Your task to perform on an android device: Open the calendar and show me this week's events? Image 0: 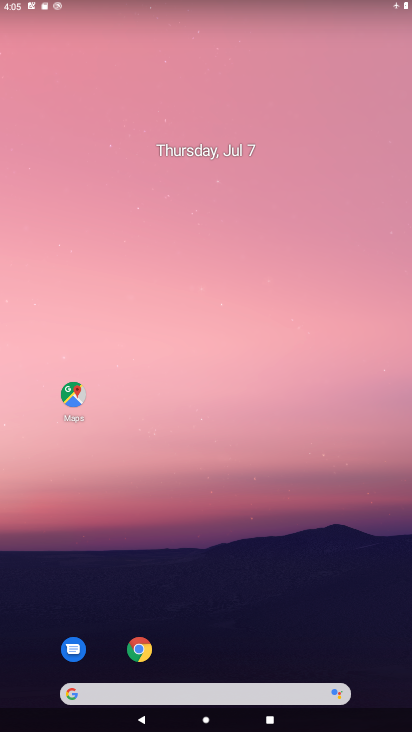
Step 0: drag from (381, 661) to (238, 166)
Your task to perform on an android device: Open the calendar and show me this week's events? Image 1: 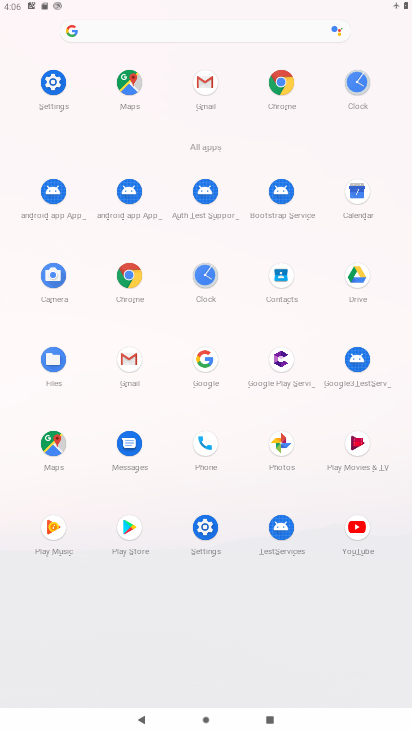
Step 1: click (357, 193)
Your task to perform on an android device: Open the calendar and show me this week's events? Image 2: 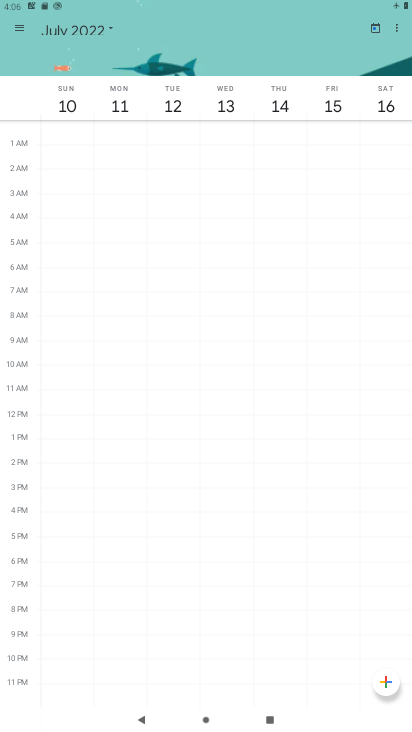
Step 2: click (109, 29)
Your task to perform on an android device: Open the calendar and show me this week's events? Image 3: 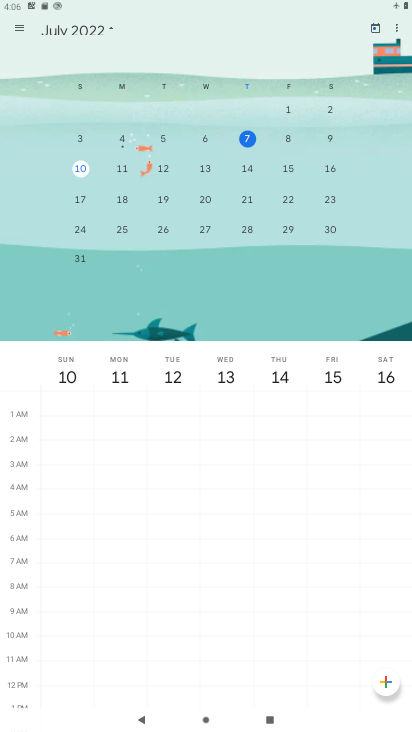
Step 3: click (79, 137)
Your task to perform on an android device: Open the calendar and show me this week's events? Image 4: 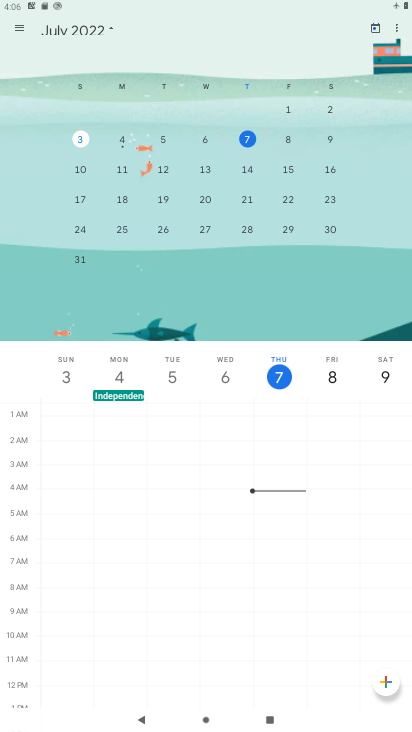
Step 4: task complete